Your task to perform on an android device: change your default location settings in chrome Image 0: 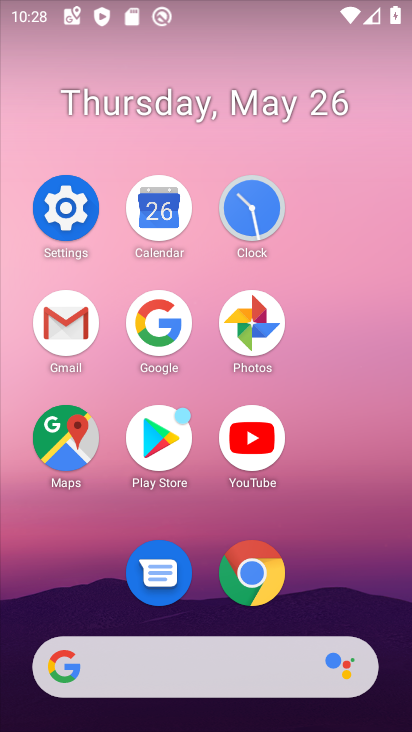
Step 0: click (267, 579)
Your task to perform on an android device: change your default location settings in chrome Image 1: 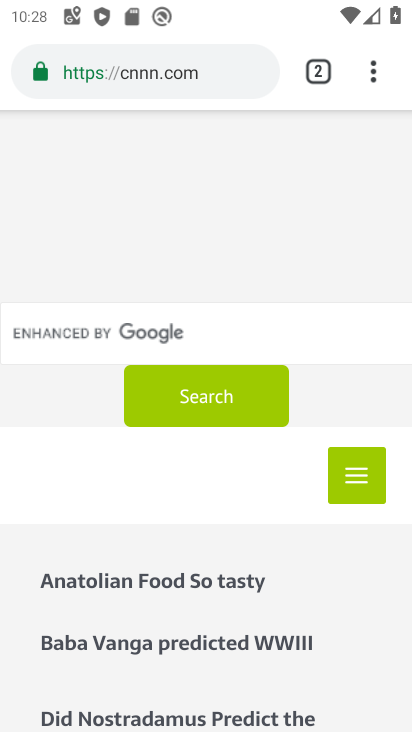
Step 1: click (382, 56)
Your task to perform on an android device: change your default location settings in chrome Image 2: 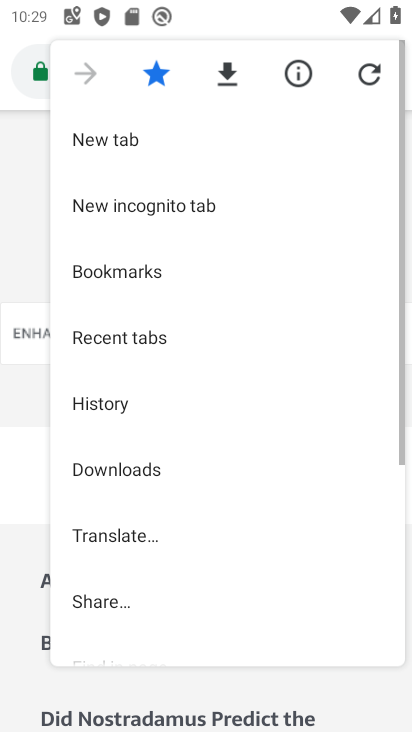
Step 2: drag from (142, 593) to (180, 136)
Your task to perform on an android device: change your default location settings in chrome Image 3: 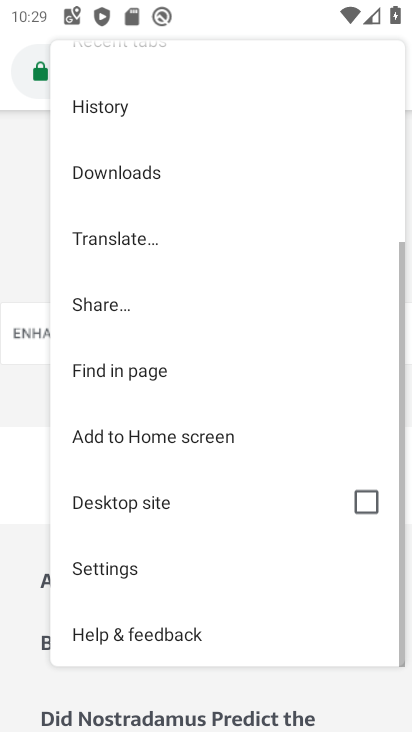
Step 3: click (164, 558)
Your task to perform on an android device: change your default location settings in chrome Image 4: 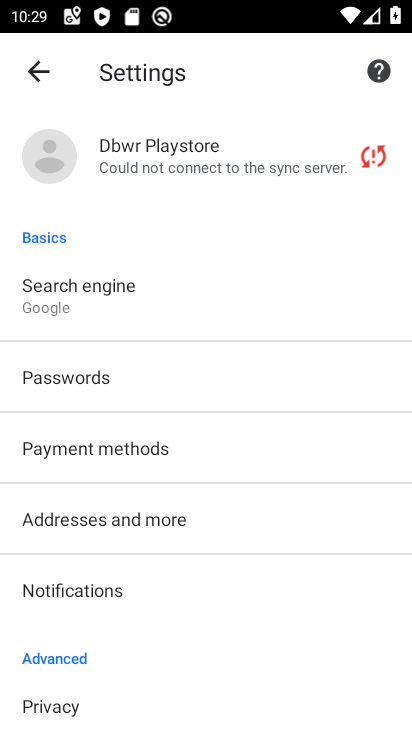
Step 4: drag from (211, 600) to (196, 124)
Your task to perform on an android device: change your default location settings in chrome Image 5: 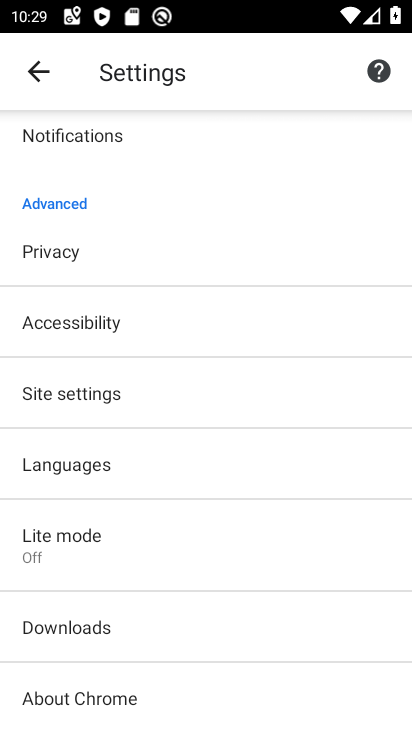
Step 5: click (119, 415)
Your task to perform on an android device: change your default location settings in chrome Image 6: 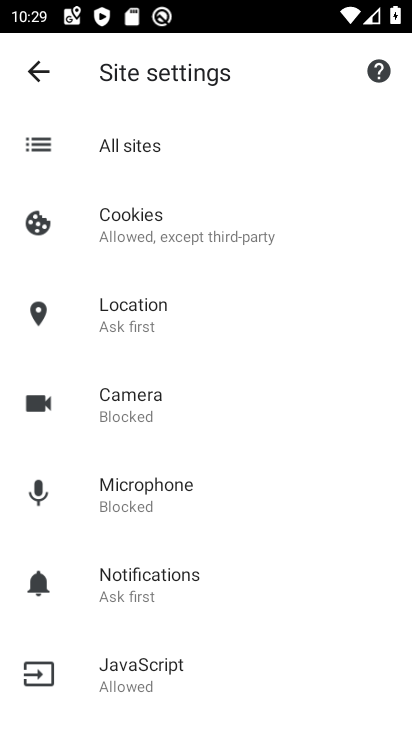
Step 6: click (234, 310)
Your task to perform on an android device: change your default location settings in chrome Image 7: 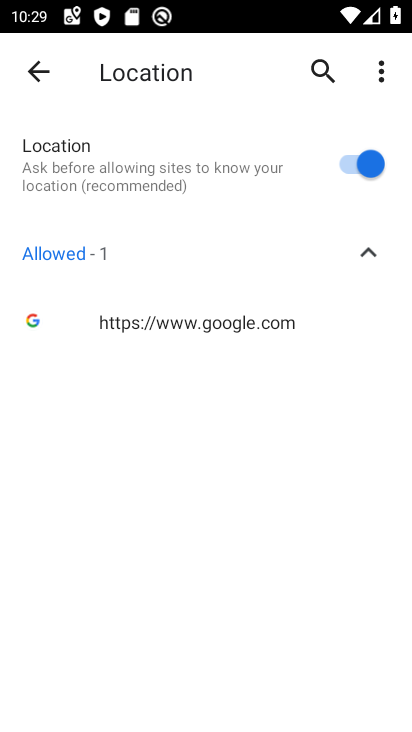
Step 7: click (376, 151)
Your task to perform on an android device: change your default location settings in chrome Image 8: 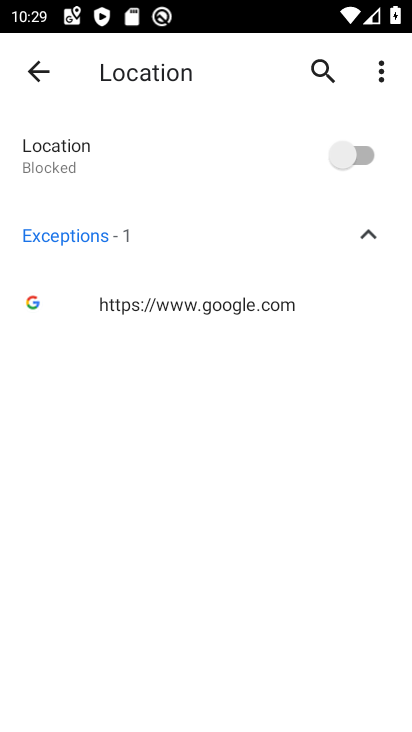
Step 8: task complete